Your task to perform on an android device: Open Yahoo.com Image 0: 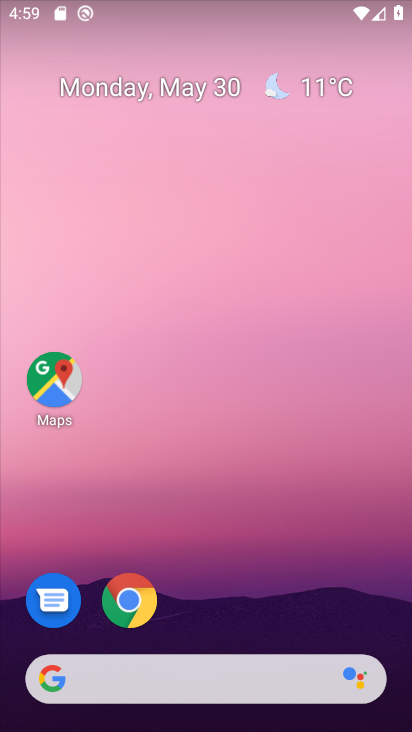
Step 0: drag from (347, 556) to (408, 85)
Your task to perform on an android device: Open Yahoo.com Image 1: 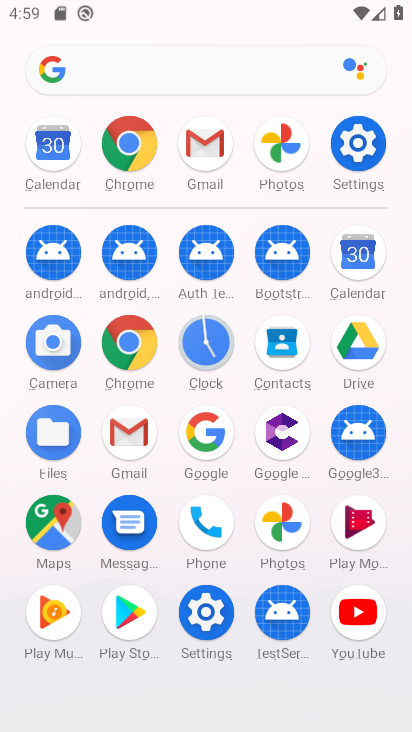
Step 1: click (141, 154)
Your task to perform on an android device: Open Yahoo.com Image 2: 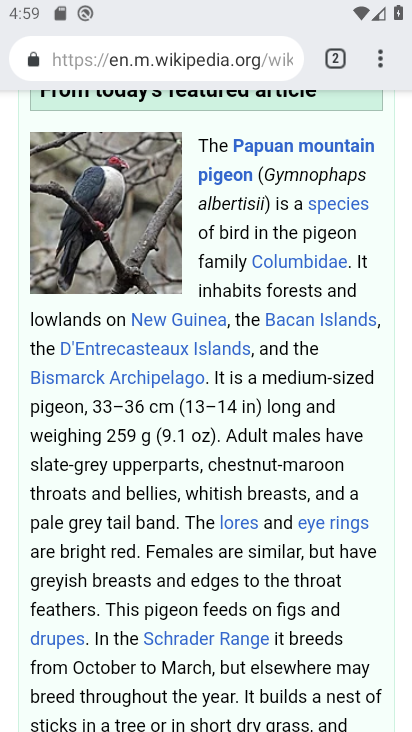
Step 2: drag from (141, 154) to (54, 646)
Your task to perform on an android device: Open Yahoo.com Image 3: 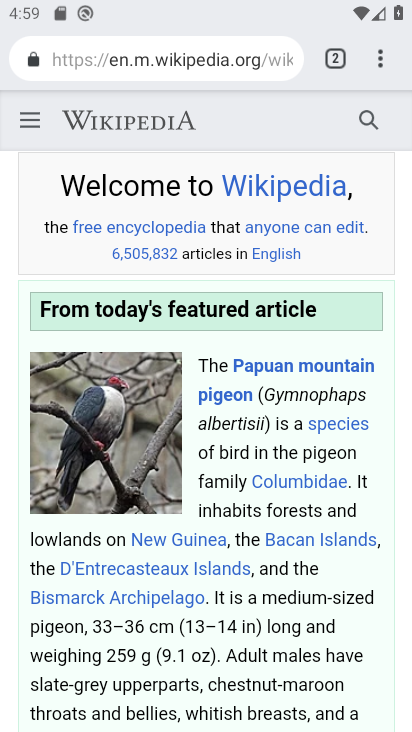
Step 3: drag from (244, 193) to (138, 628)
Your task to perform on an android device: Open Yahoo.com Image 4: 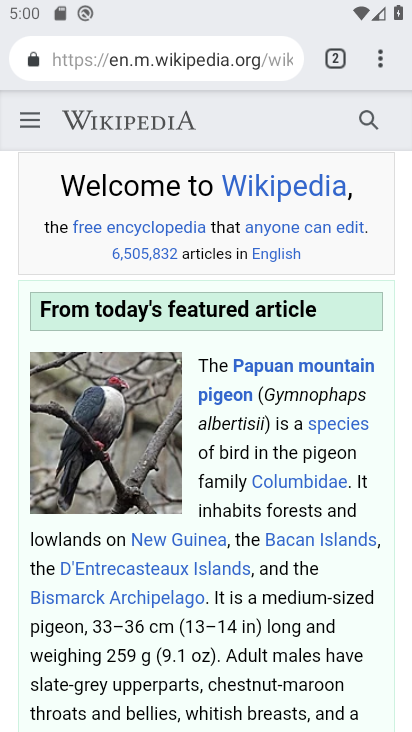
Step 4: click (199, 61)
Your task to perform on an android device: Open Yahoo.com Image 5: 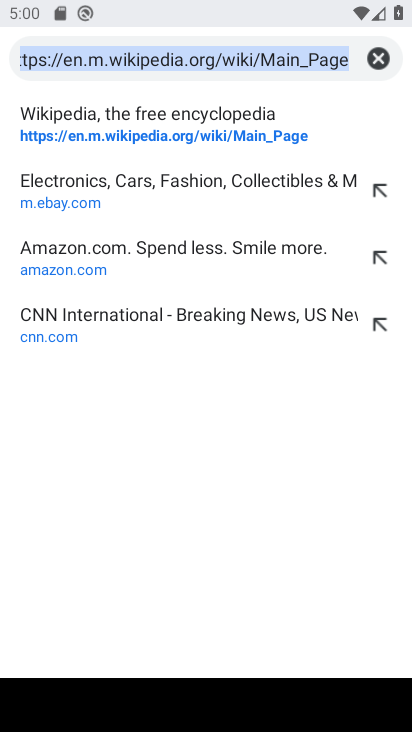
Step 5: click (374, 63)
Your task to perform on an android device: Open Yahoo.com Image 6: 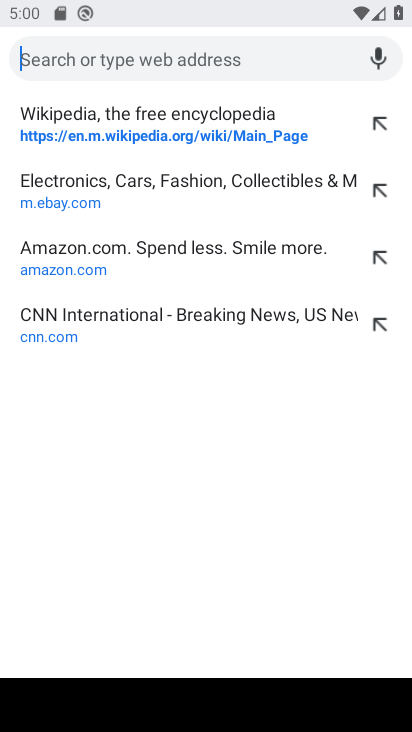
Step 6: type "yahoo"
Your task to perform on an android device: Open Yahoo.com Image 7: 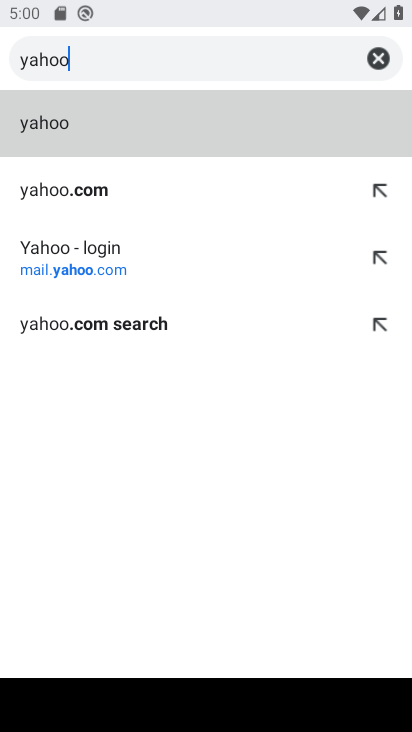
Step 7: click (68, 198)
Your task to perform on an android device: Open Yahoo.com Image 8: 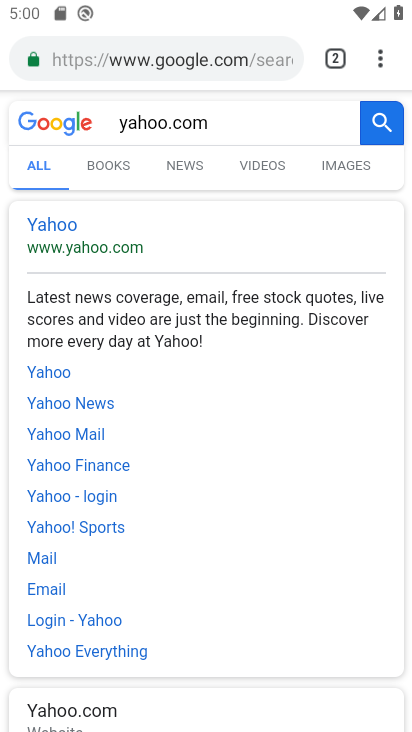
Step 8: click (39, 241)
Your task to perform on an android device: Open Yahoo.com Image 9: 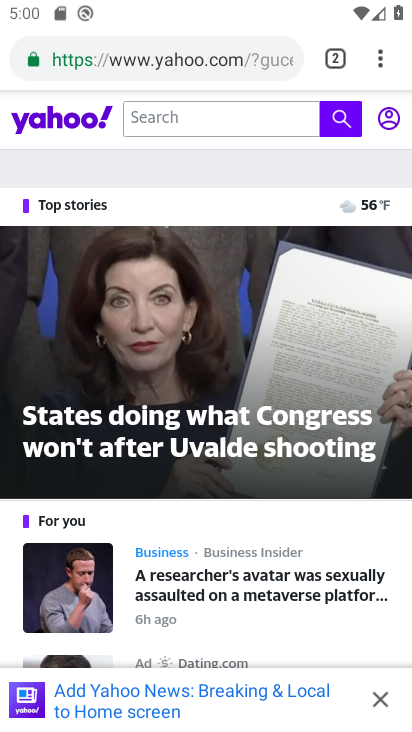
Step 9: task complete